Your task to perform on an android device: empty trash in the gmail app Image 0: 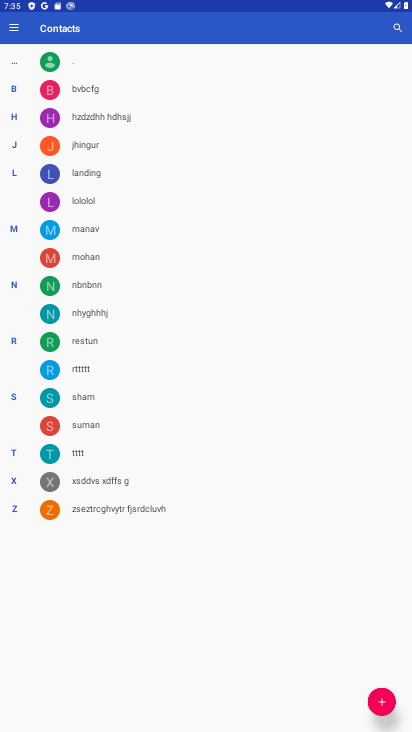
Step 0: press home button
Your task to perform on an android device: empty trash in the gmail app Image 1: 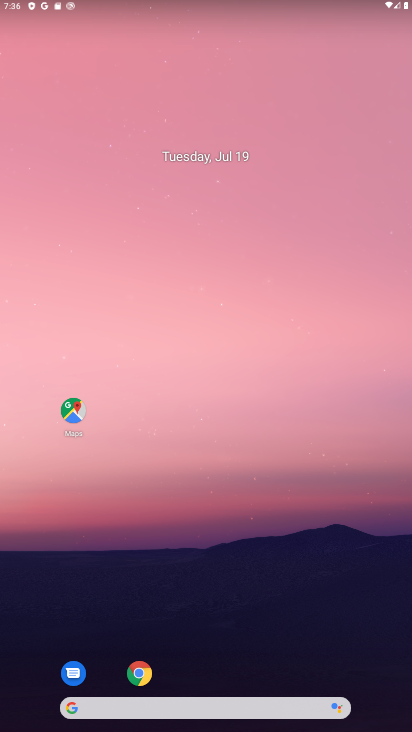
Step 1: click (141, 680)
Your task to perform on an android device: empty trash in the gmail app Image 2: 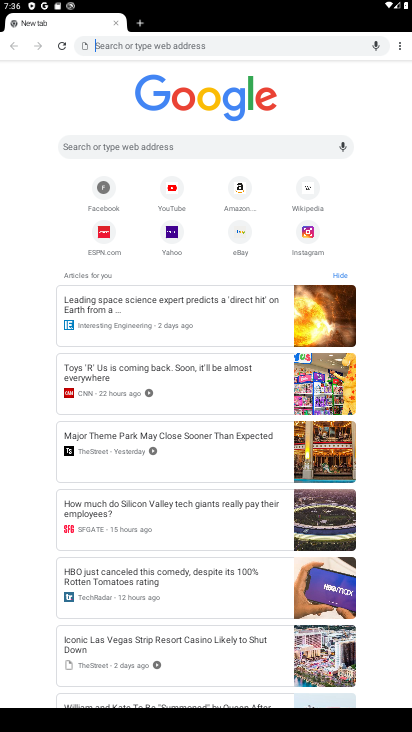
Step 2: click (402, 47)
Your task to perform on an android device: empty trash in the gmail app Image 3: 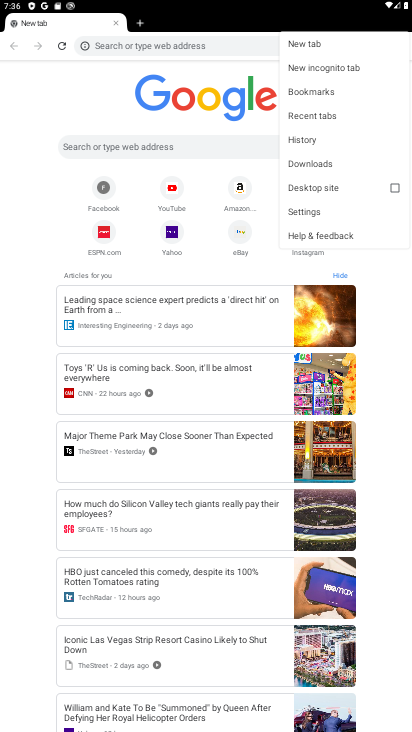
Step 3: click (317, 213)
Your task to perform on an android device: empty trash in the gmail app Image 4: 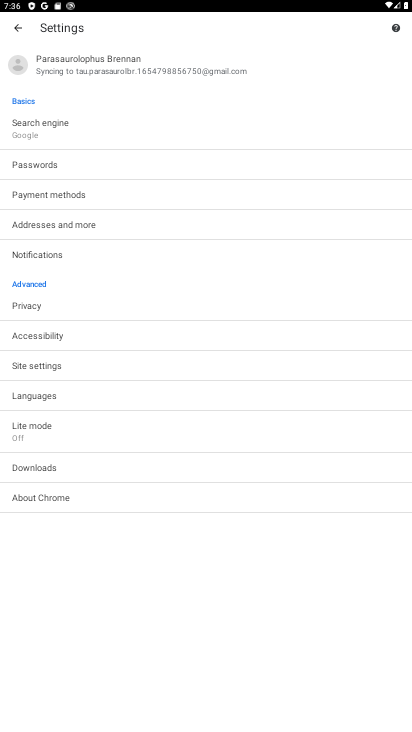
Step 4: press home button
Your task to perform on an android device: empty trash in the gmail app Image 5: 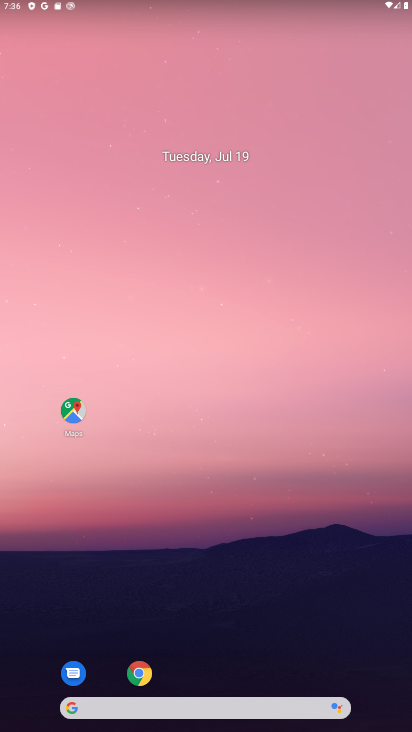
Step 5: drag from (245, 671) to (192, 139)
Your task to perform on an android device: empty trash in the gmail app Image 6: 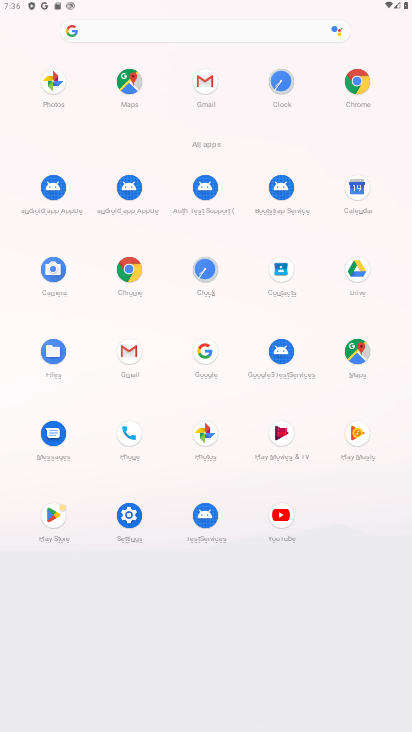
Step 6: click (204, 80)
Your task to perform on an android device: empty trash in the gmail app Image 7: 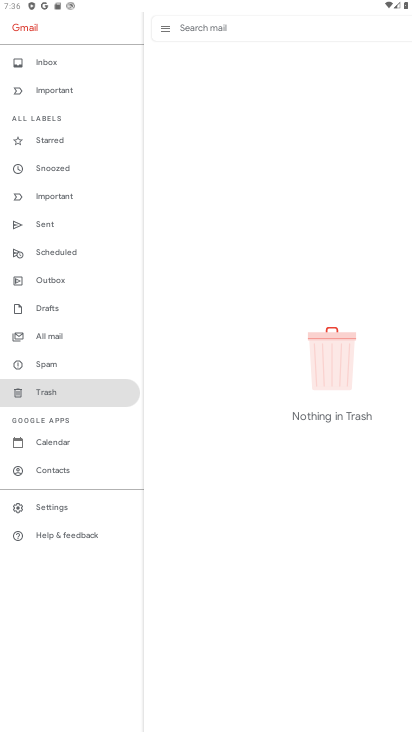
Step 7: task complete